Your task to perform on an android device: Show me the alarms in the clock app Image 0: 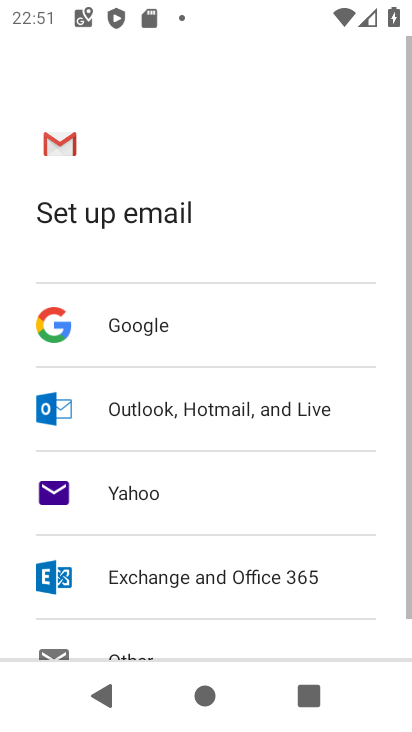
Step 0: press home button
Your task to perform on an android device: Show me the alarms in the clock app Image 1: 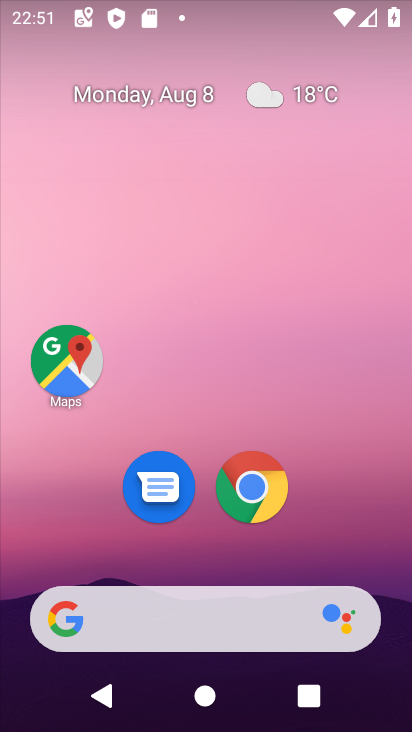
Step 1: drag from (214, 417) to (213, 76)
Your task to perform on an android device: Show me the alarms in the clock app Image 2: 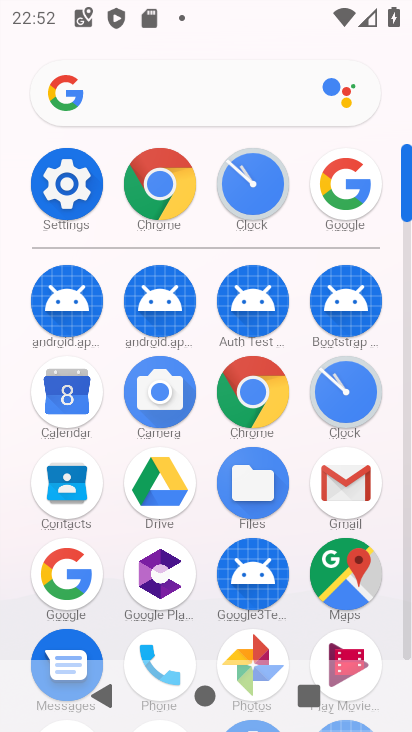
Step 2: click (347, 394)
Your task to perform on an android device: Show me the alarms in the clock app Image 3: 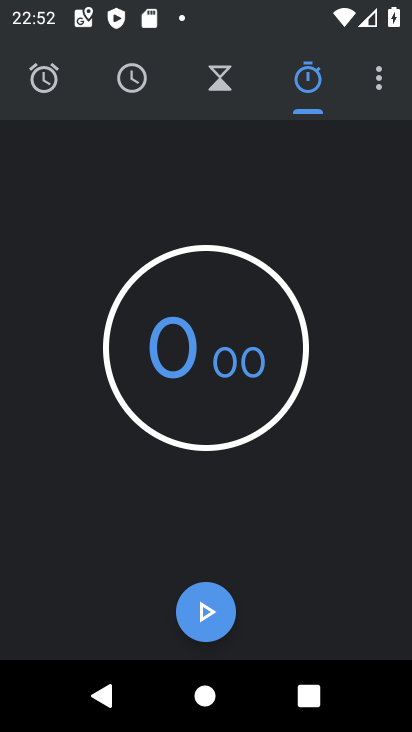
Step 3: click (40, 79)
Your task to perform on an android device: Show me the alarms in the clock app Image 4: 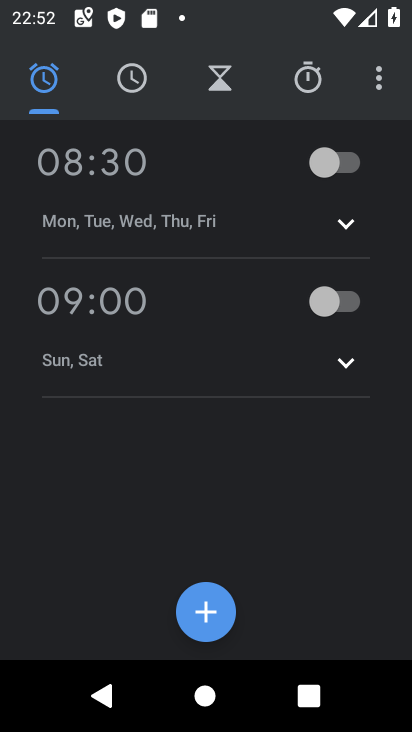
Step 4: task complete